Your task to perform on an android device: turn on improve location accuracy Image 0: 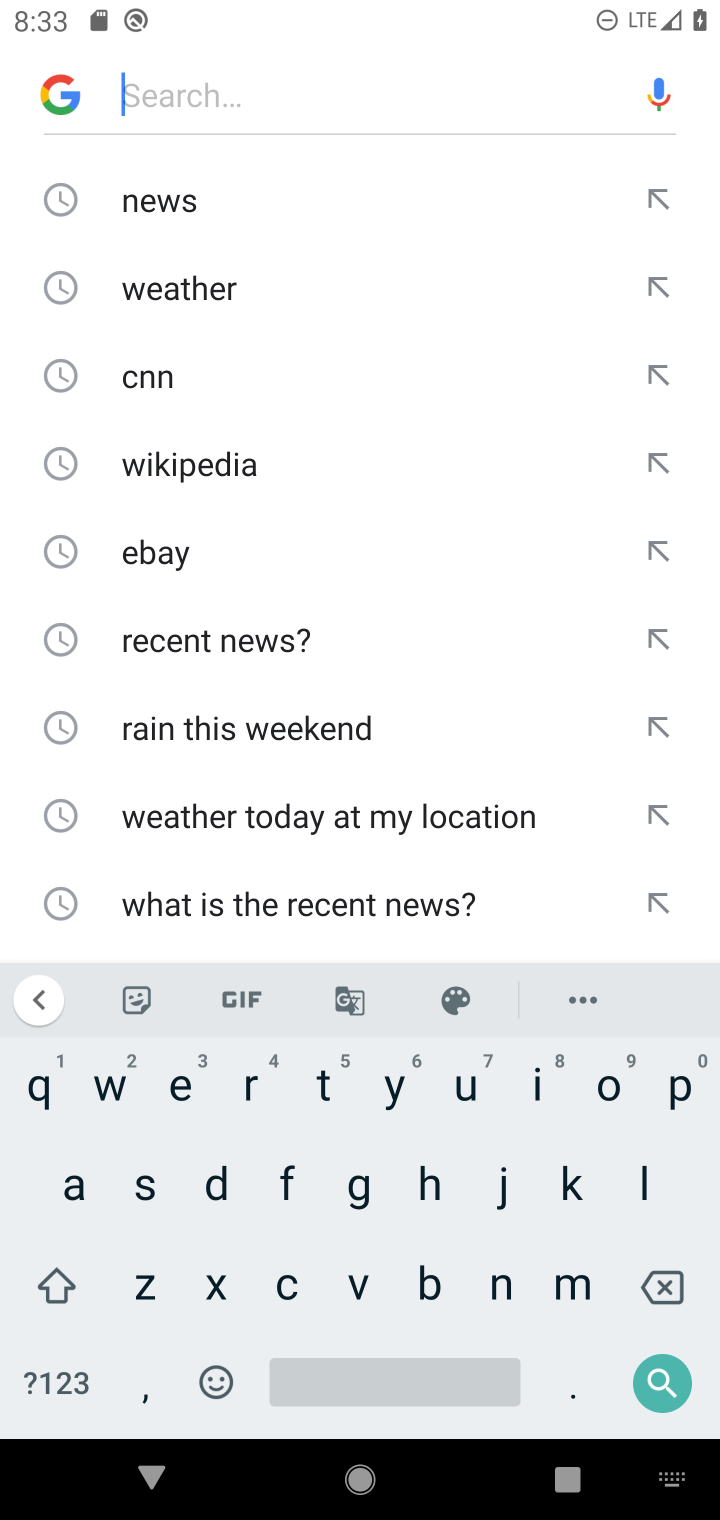
Step 0: press home button
Your task to perform on an android device: turn on improve location accuracy Image 1: 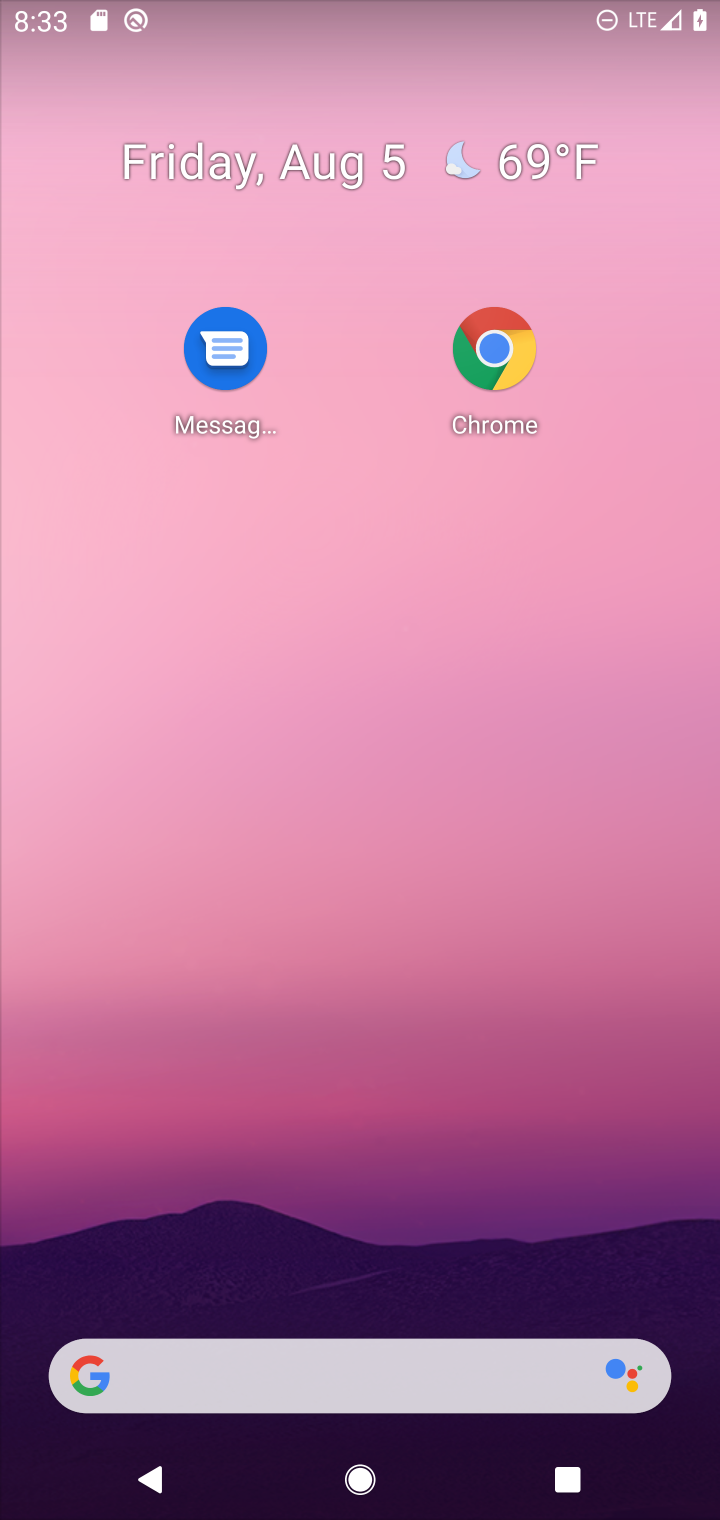
Step 1: drag from (453, 1429) to (357, 527)
Your task to perform on an android device: turn on improve location accuracy Image 2: 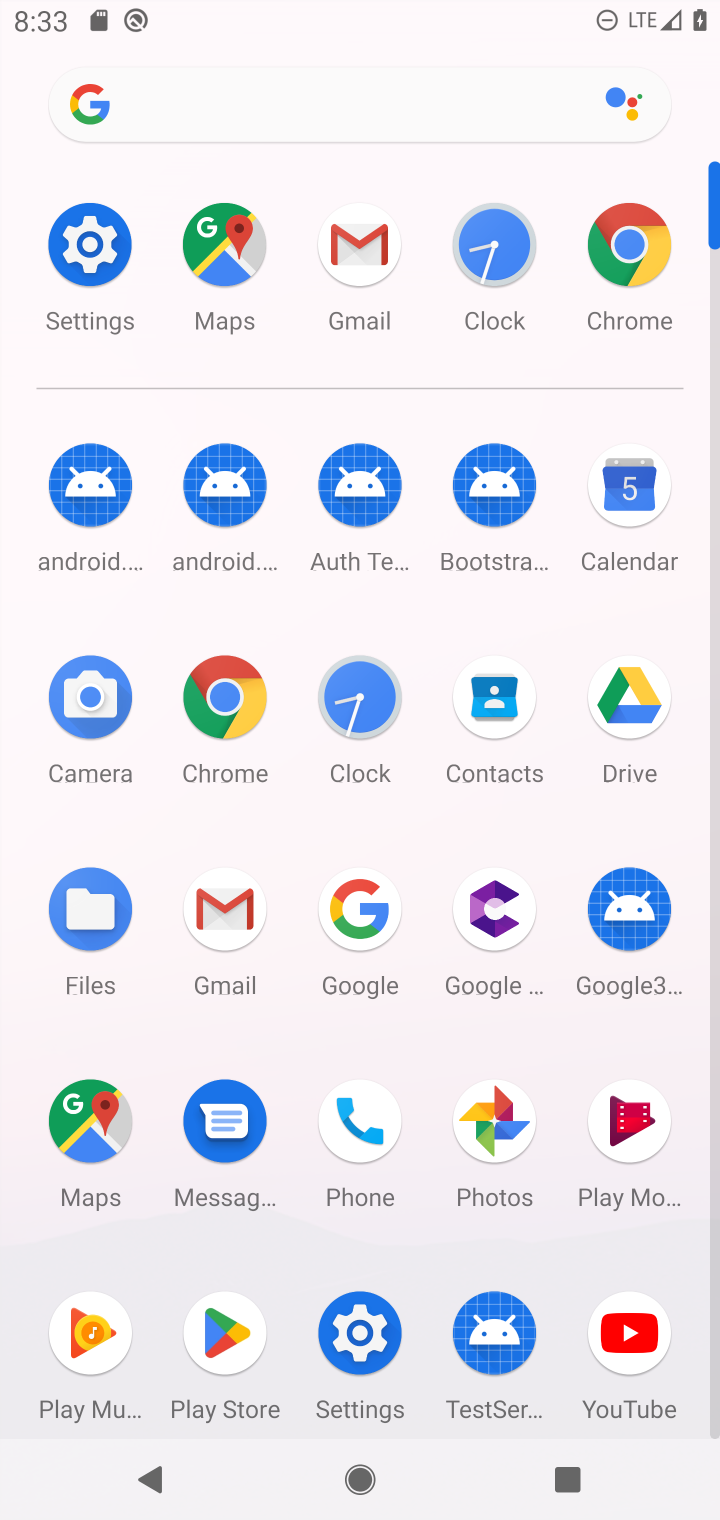
Step 2: click (103, 272)
Your task to perform on an android device: turn on improve location accuracy Image 3: 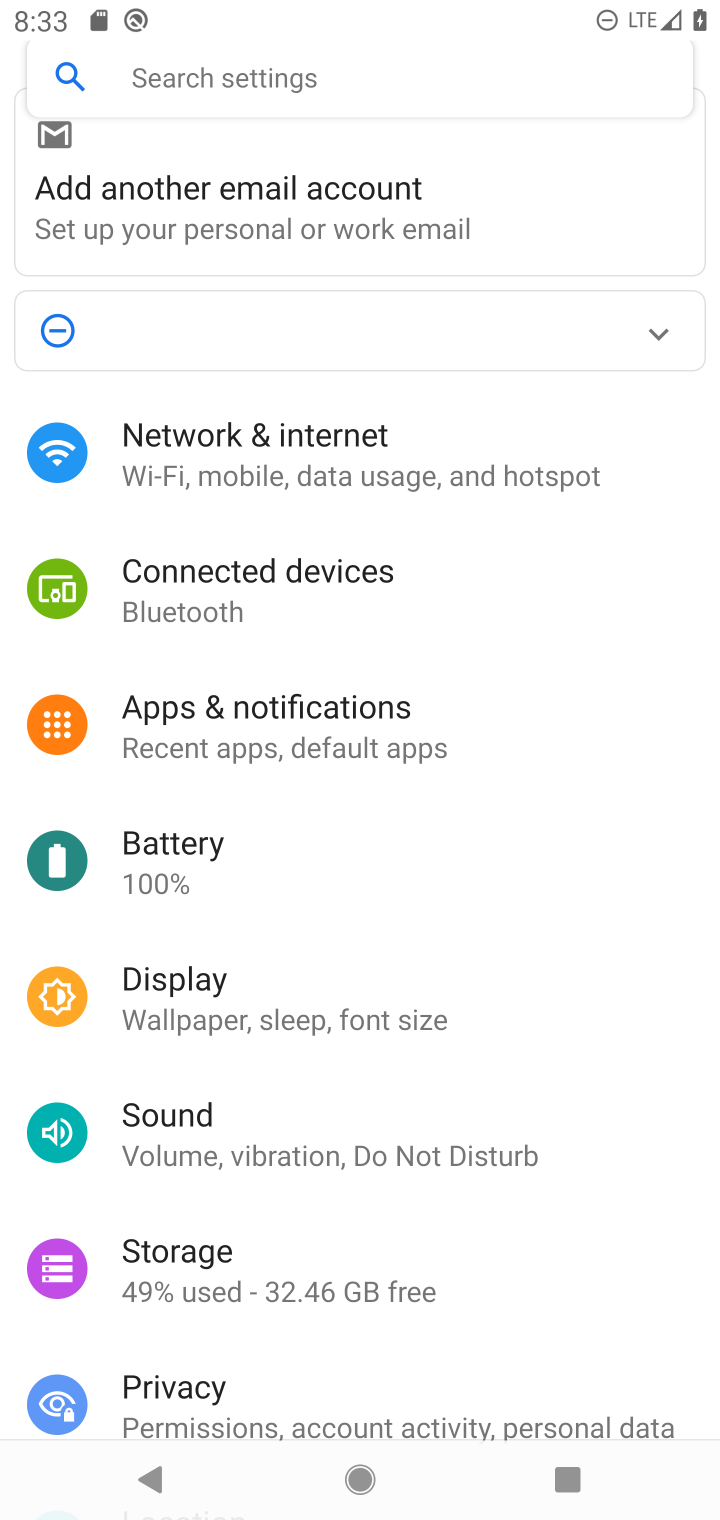
Step 3: click (241, 66)
Your task to perform on an android device: turn on improve location accuracy Image 4: 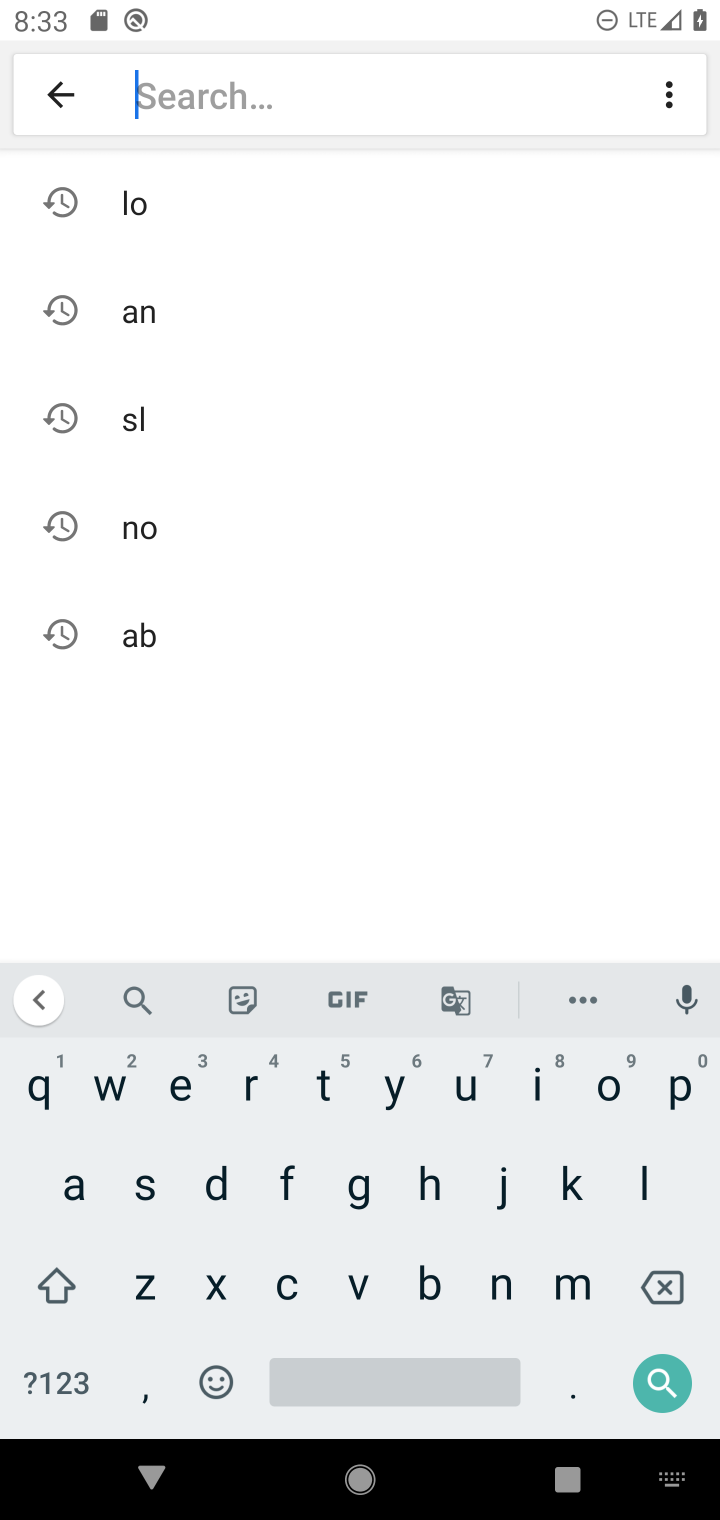
Step 4: click (168, 218)
Your task to perform on an android device: turn on improve location accuracy Image 5: 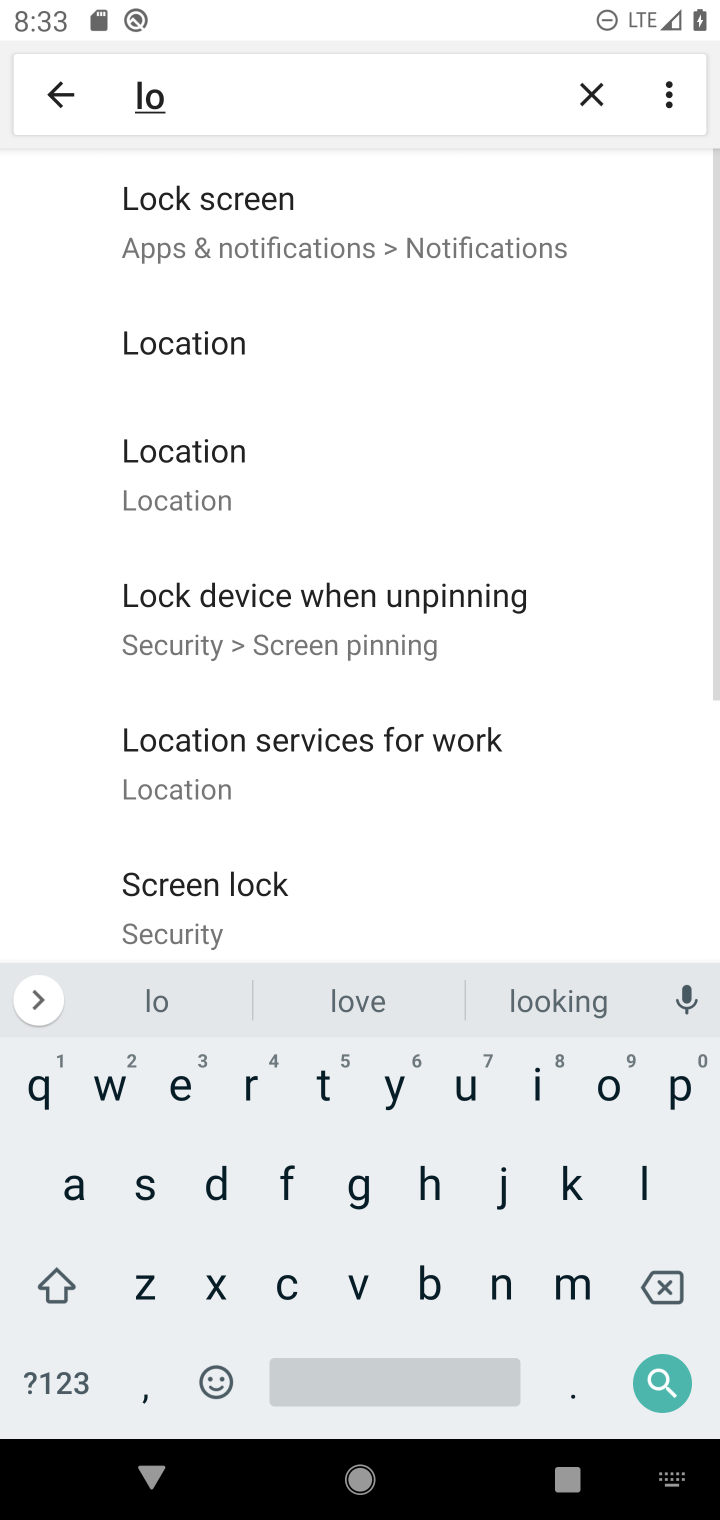
Step 5: click (263, 461)
Your task to perform on an android device: turn on improve location accuracy Image 6: 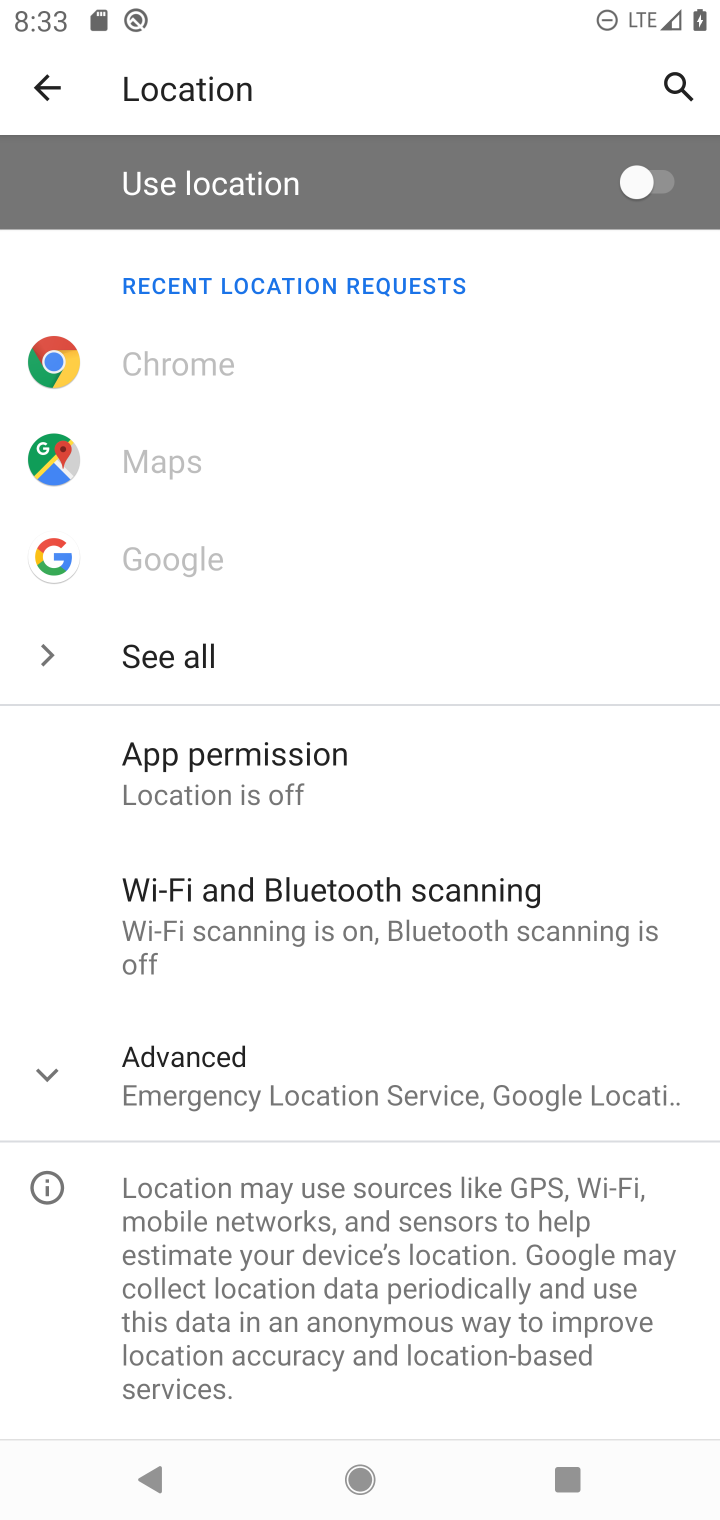
Step 6: click (57, 1065)
Your task to perform on an android device: turn on improve location accuracy Image 7: 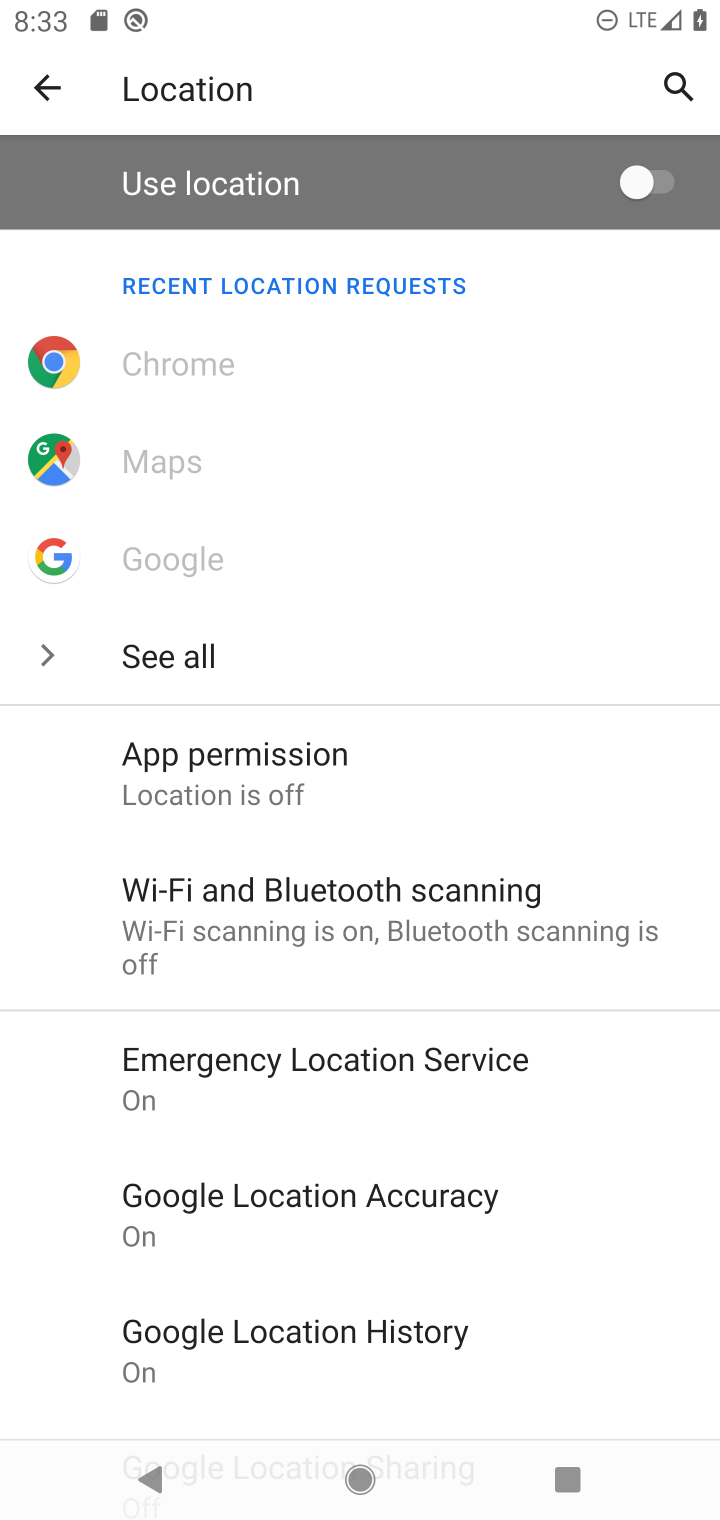
Step 7: click (361, 1181)
Your task to perform on an android device: turn on improve location accuracy Image 8: 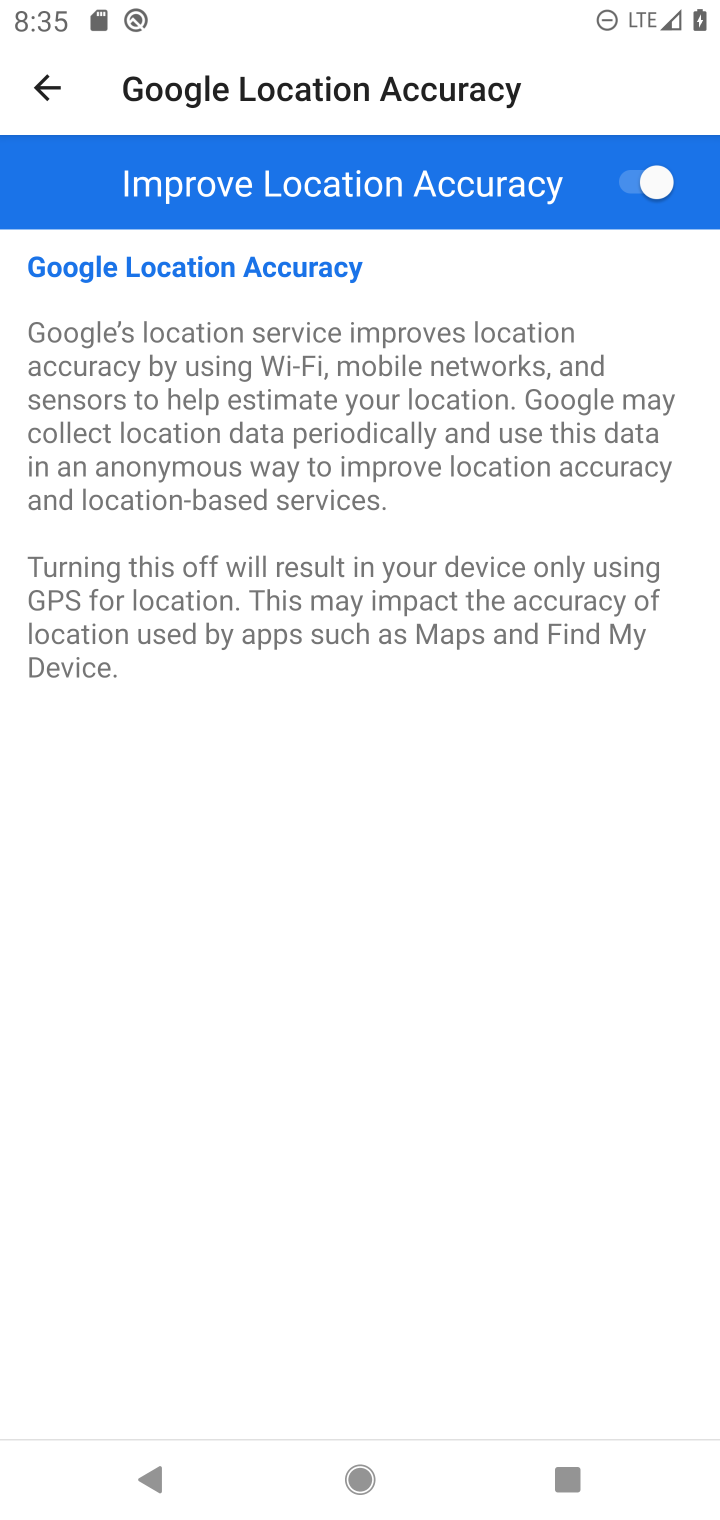
Step 8: task complete